Your task to perform on an android device: Clear all items from cart on newegg. Add usb-a to usb-b to the cart on newegg Image 0: 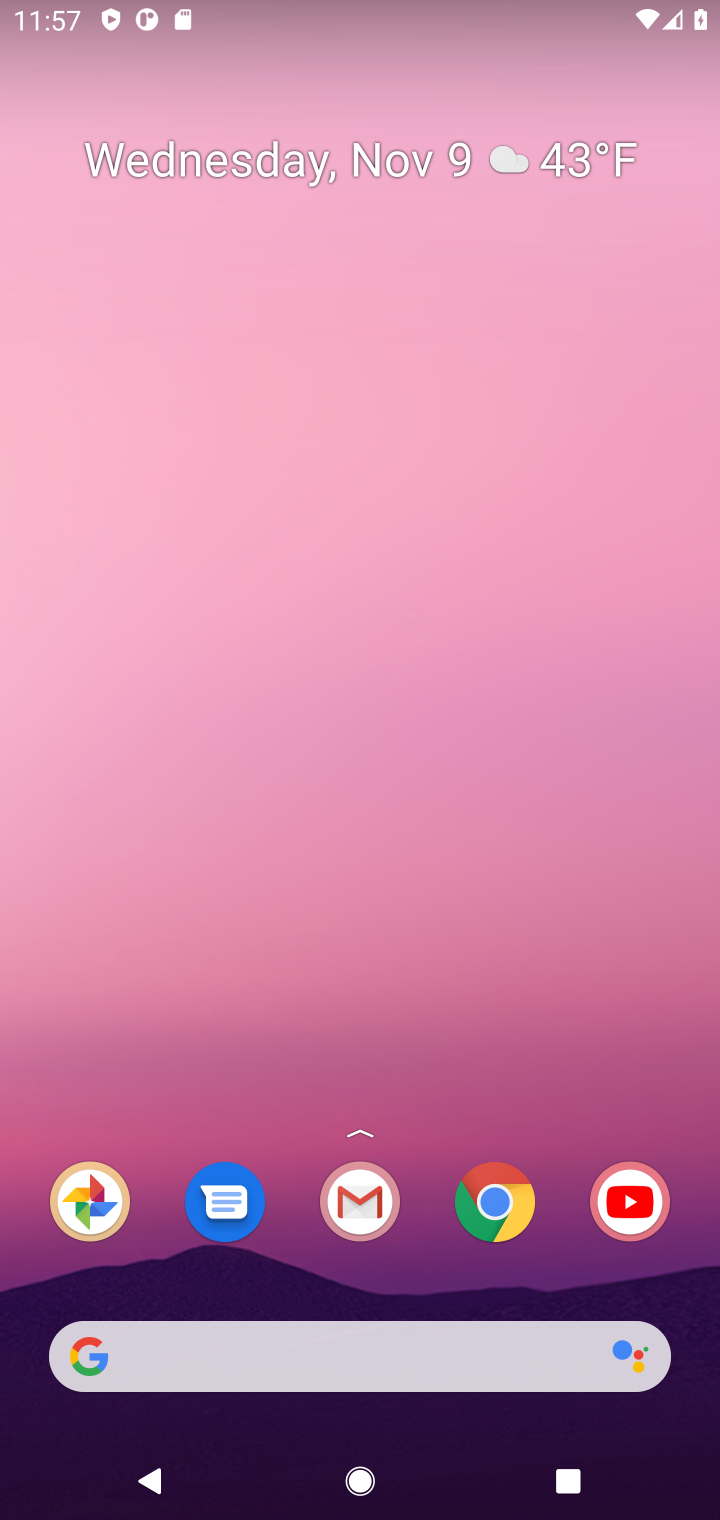
Step 0: click (368, 78)
Your task to perform on an android device: Clear all items from cart on newegg. Add usb-a to usb-b to the cart on newegg Image 1: 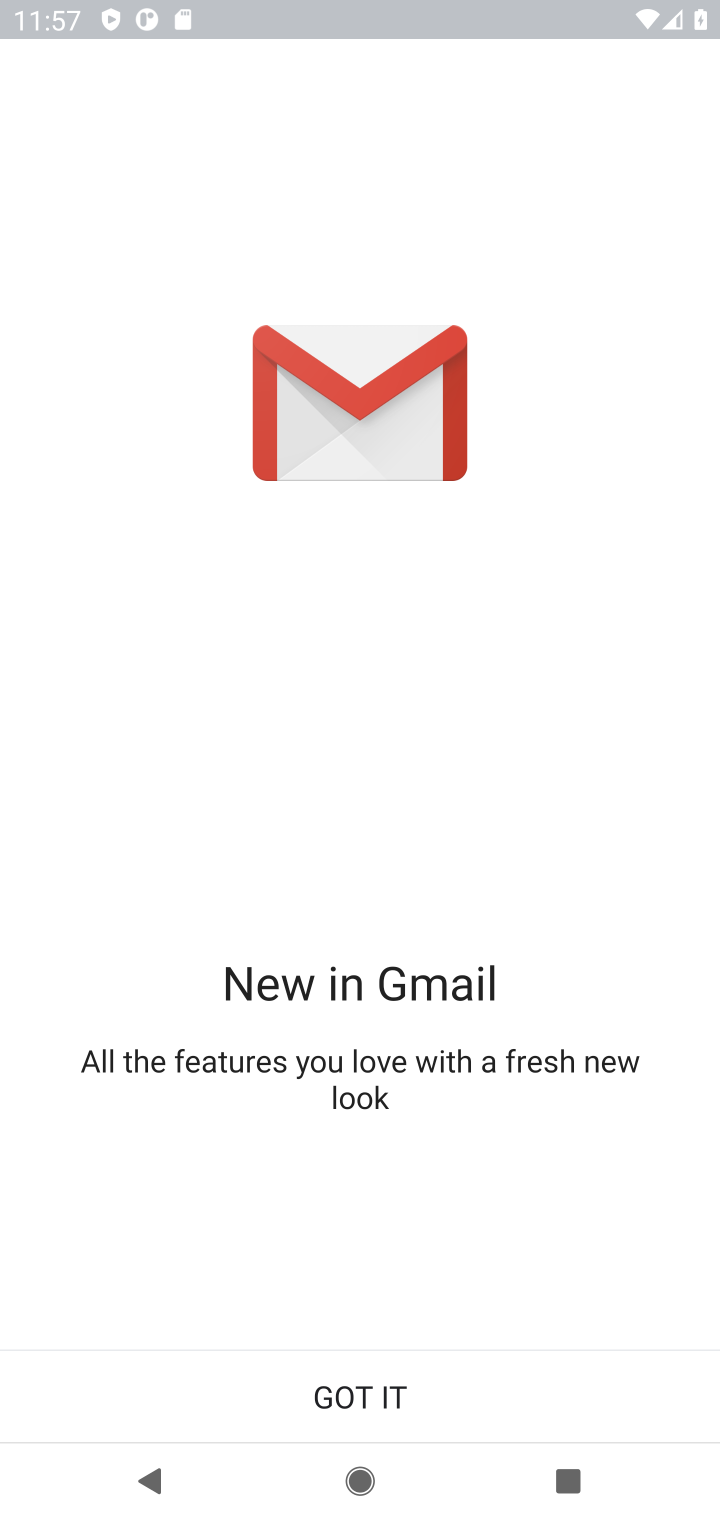
Step 1: press home button
Your task to perform on an android device: Clear all items from cart on newegg. Add usb-a to usb-b to the cart on newegg Image 2: 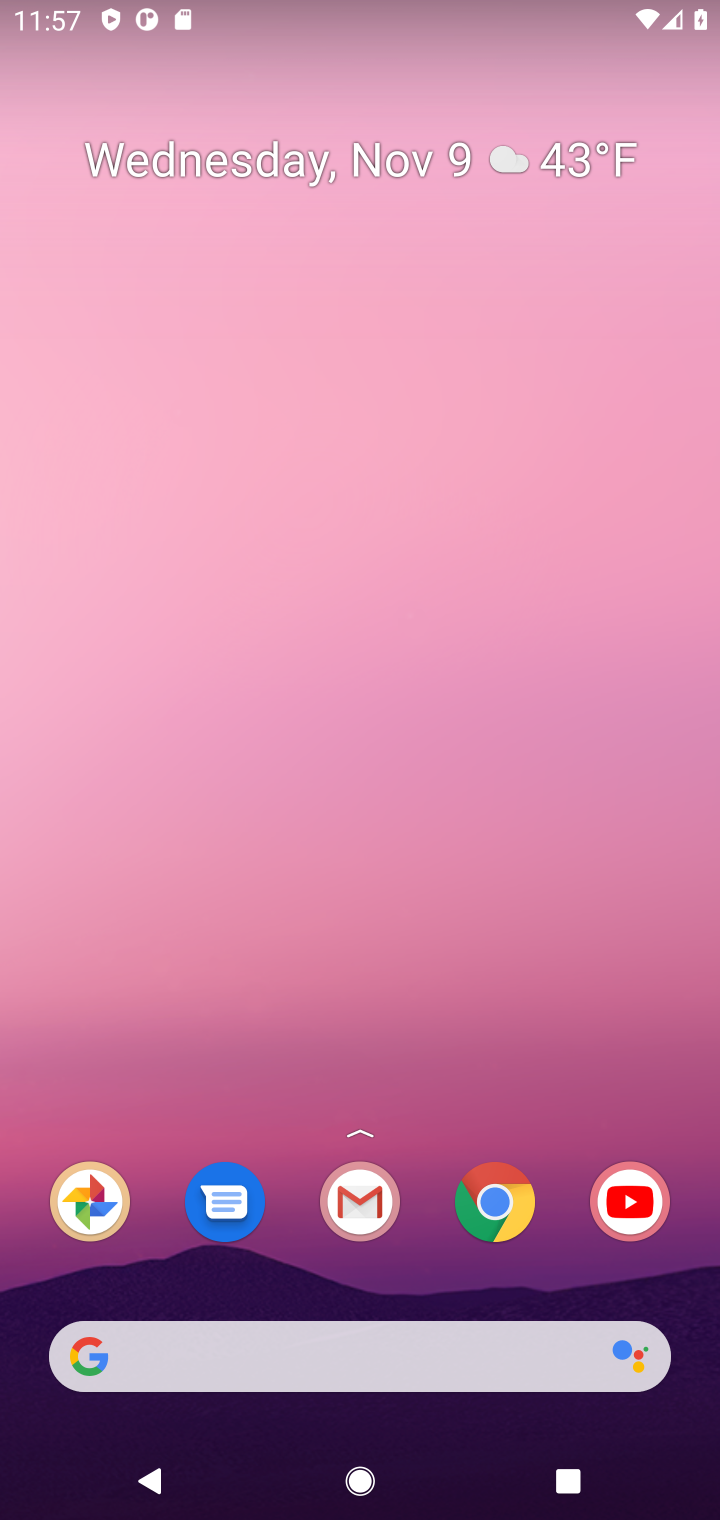
Step 2: click (495, 1192)
Your task to perform on an android device: Clear all items from cart on newegg. Add usb-a to usb-b to the cart on newegg Image 3: 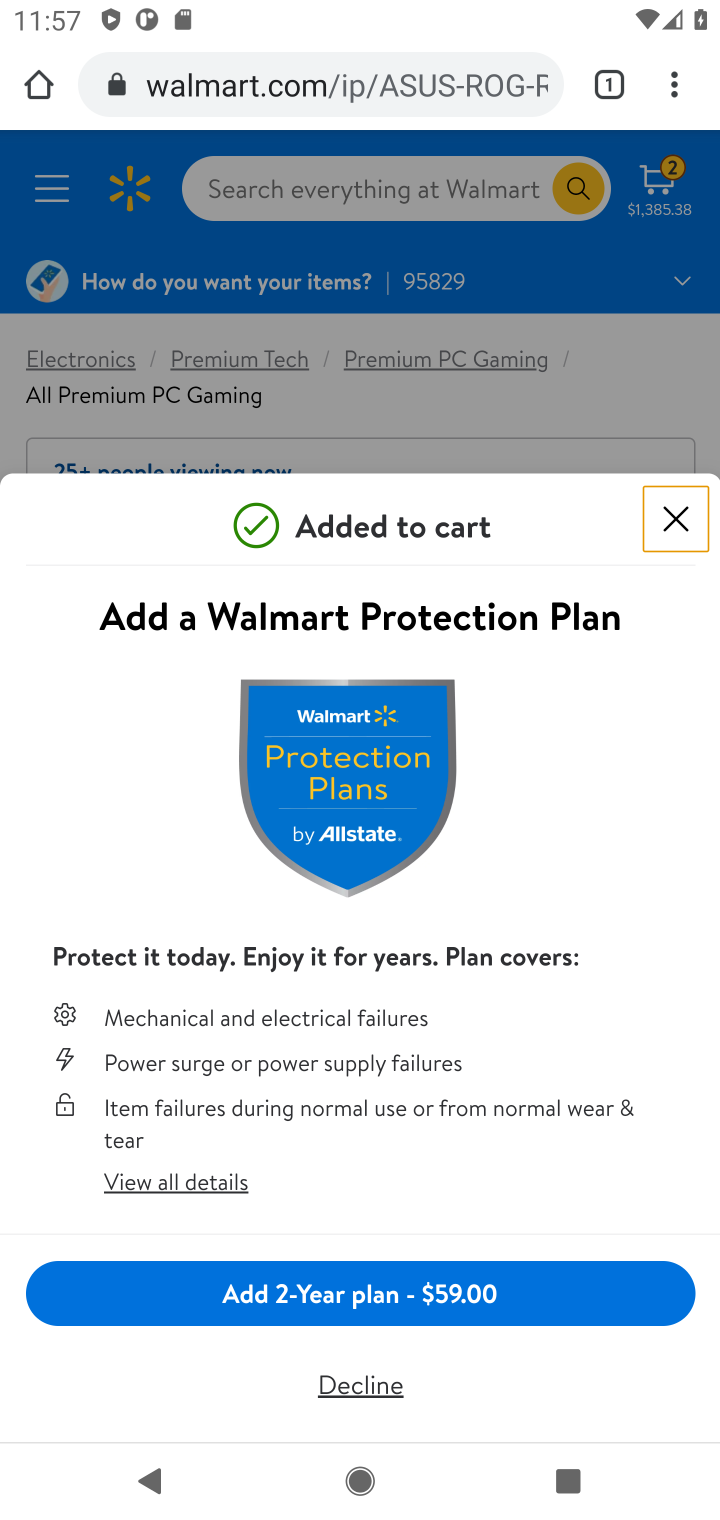
Step 3: click (422, 79)
Your task to perform on an android device: Clear all items from cart on newegg. Add usb-a to usb-b to the cart on newegg Image 4: 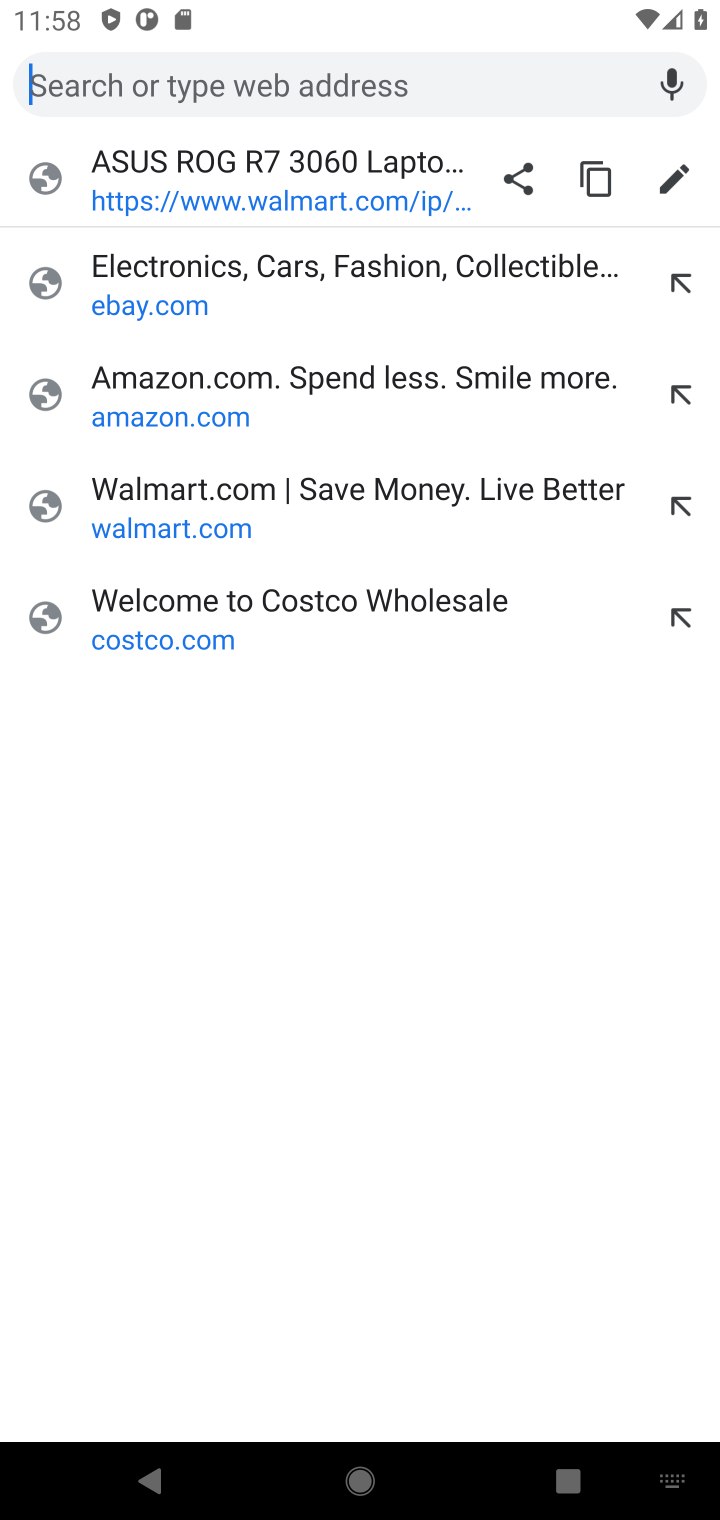
Step 4: type "newegg"
Your task to perform on an android device: Clear all items from cart on newegg. Add usb-a to usb-b to the cart on newegg Image 5: 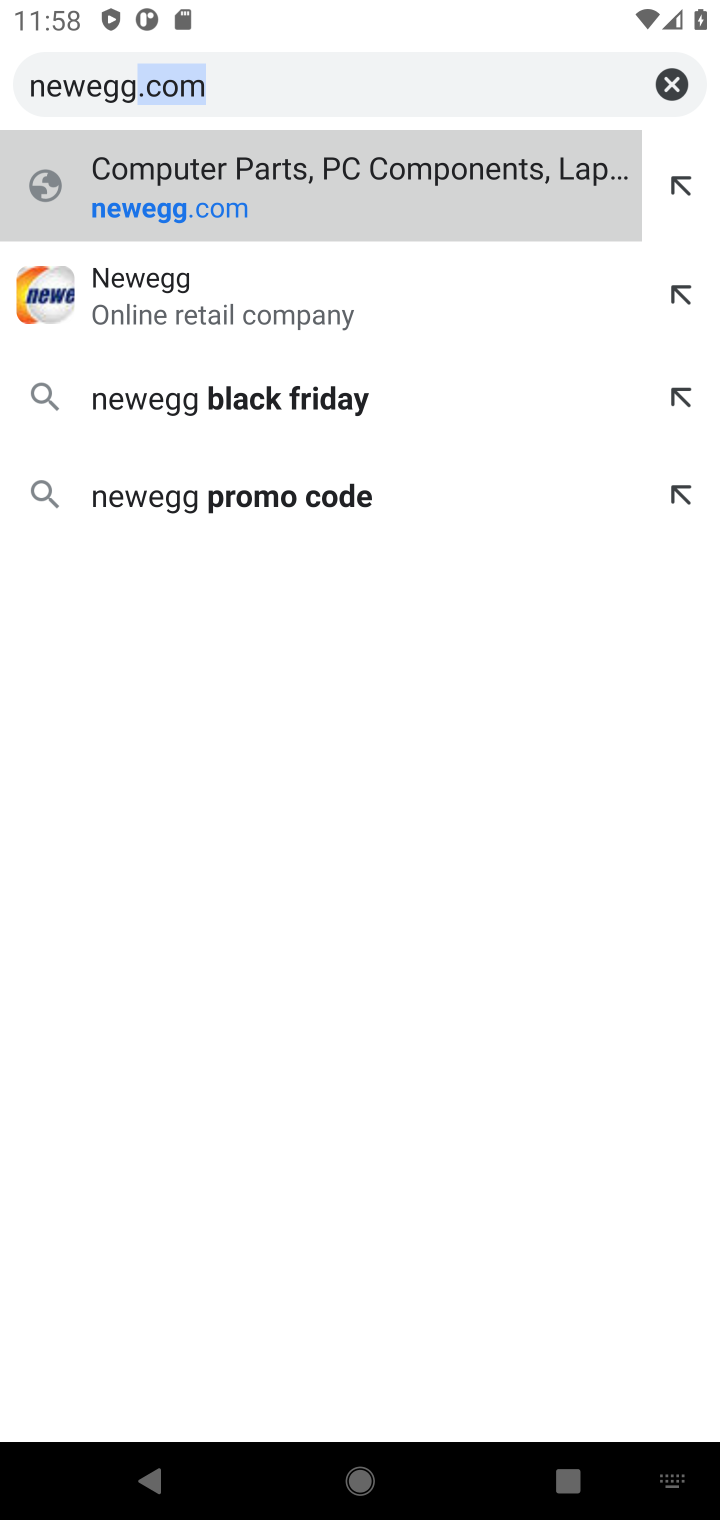
Step 5: press enter
Your task to perform on an android device: Clear all items from cart on newegg. Add usb-a to usb-b to the cart on newegg Image 6: 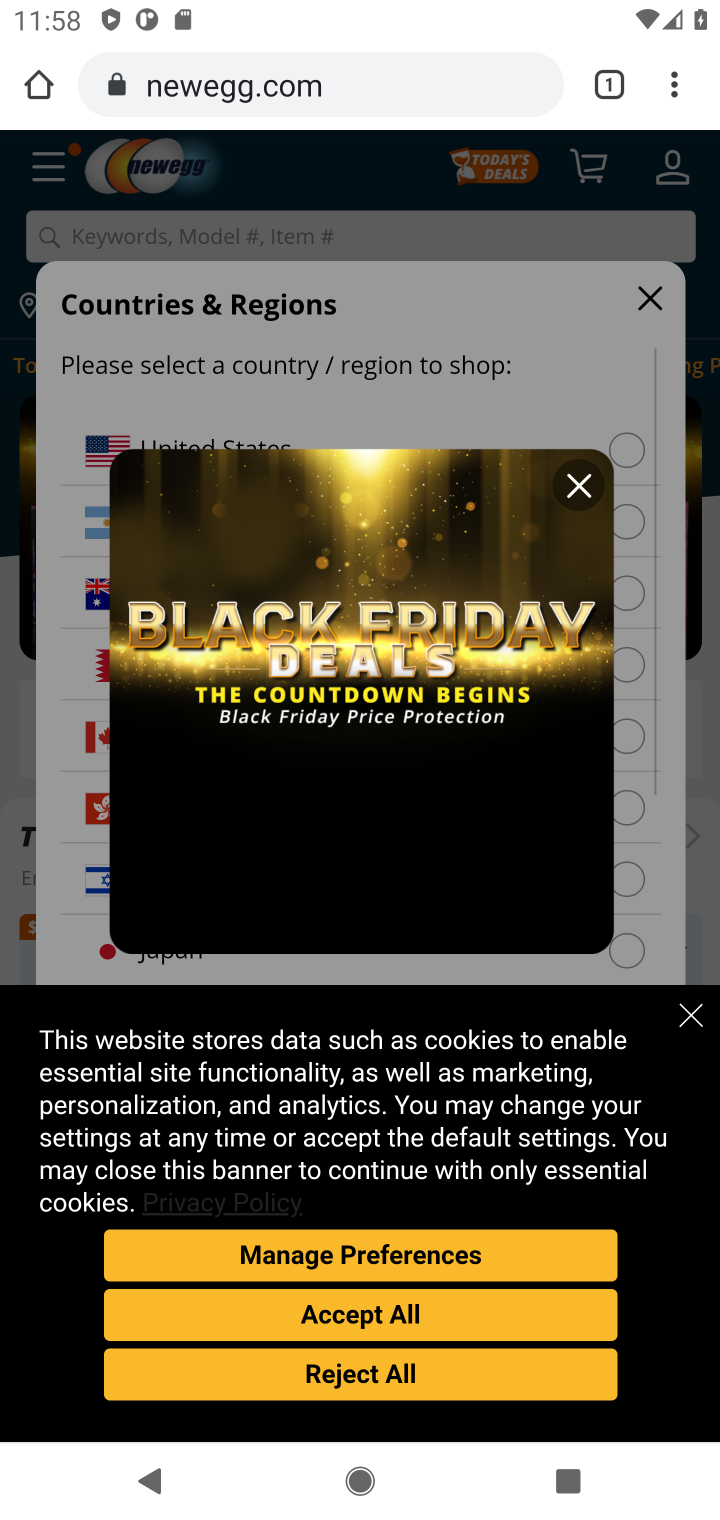
Step 6: click (575, 485)
Your task to perform on an android device: Clear all items from cart on newegg. Add usb-a to usb-b to the cart on newegg Image 7: 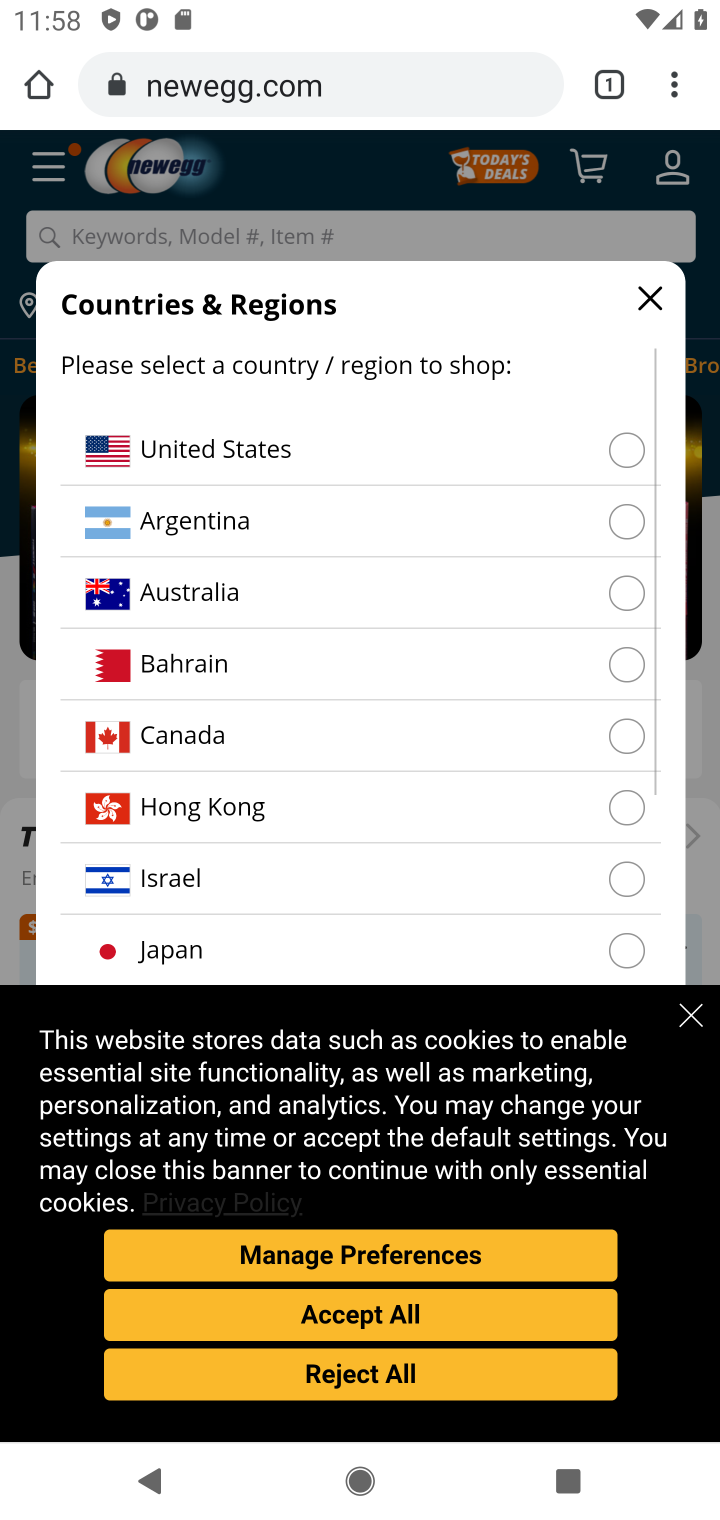
Step 7: click (645, 454)
Your task to perform on an android device: Clear all items from cart on newegg. Add usb-a to usb-b to the cart on newegg Image 8: 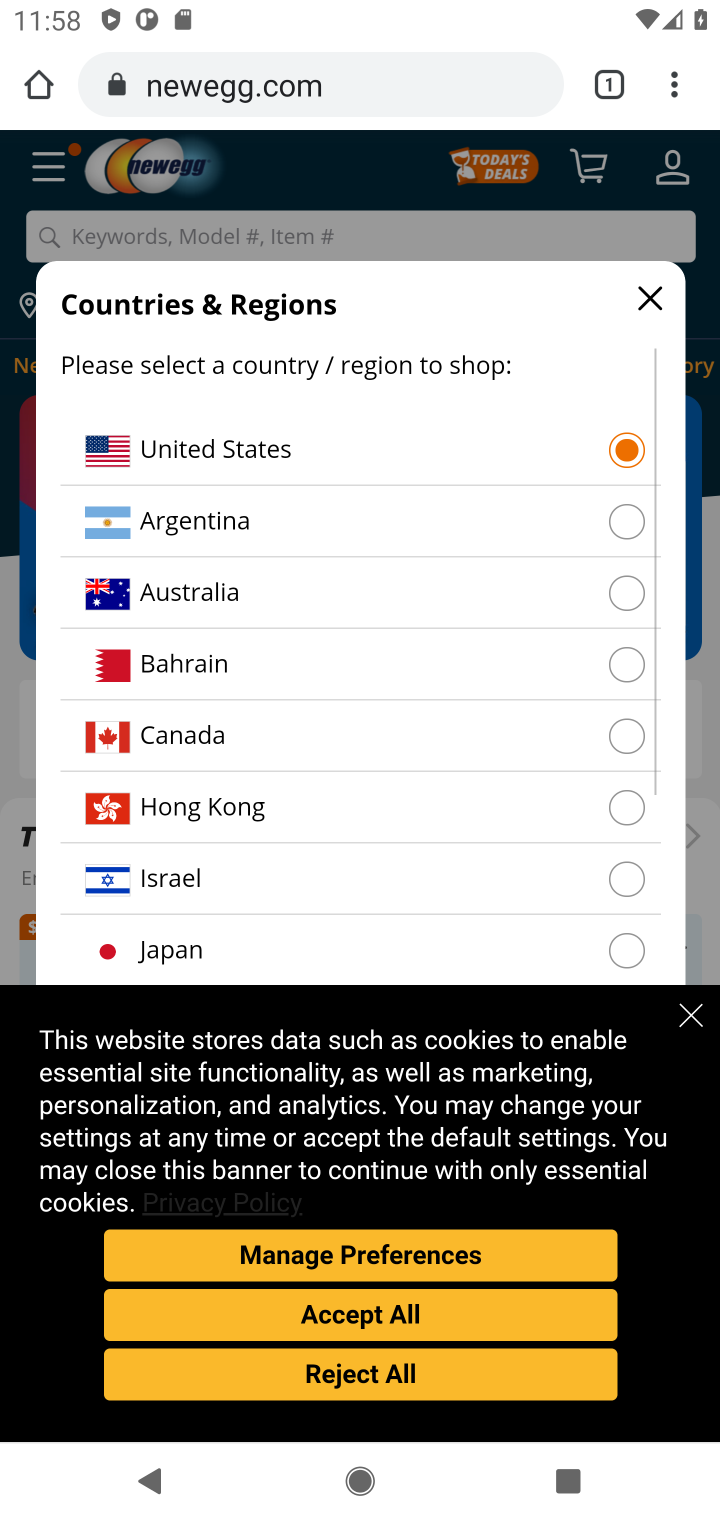
Step 8: click (701, 1021)
Your task to perform on an android device: Clear all items from cart on newegg. Add usb-a to usb-b to the cart on newegg Image 9: 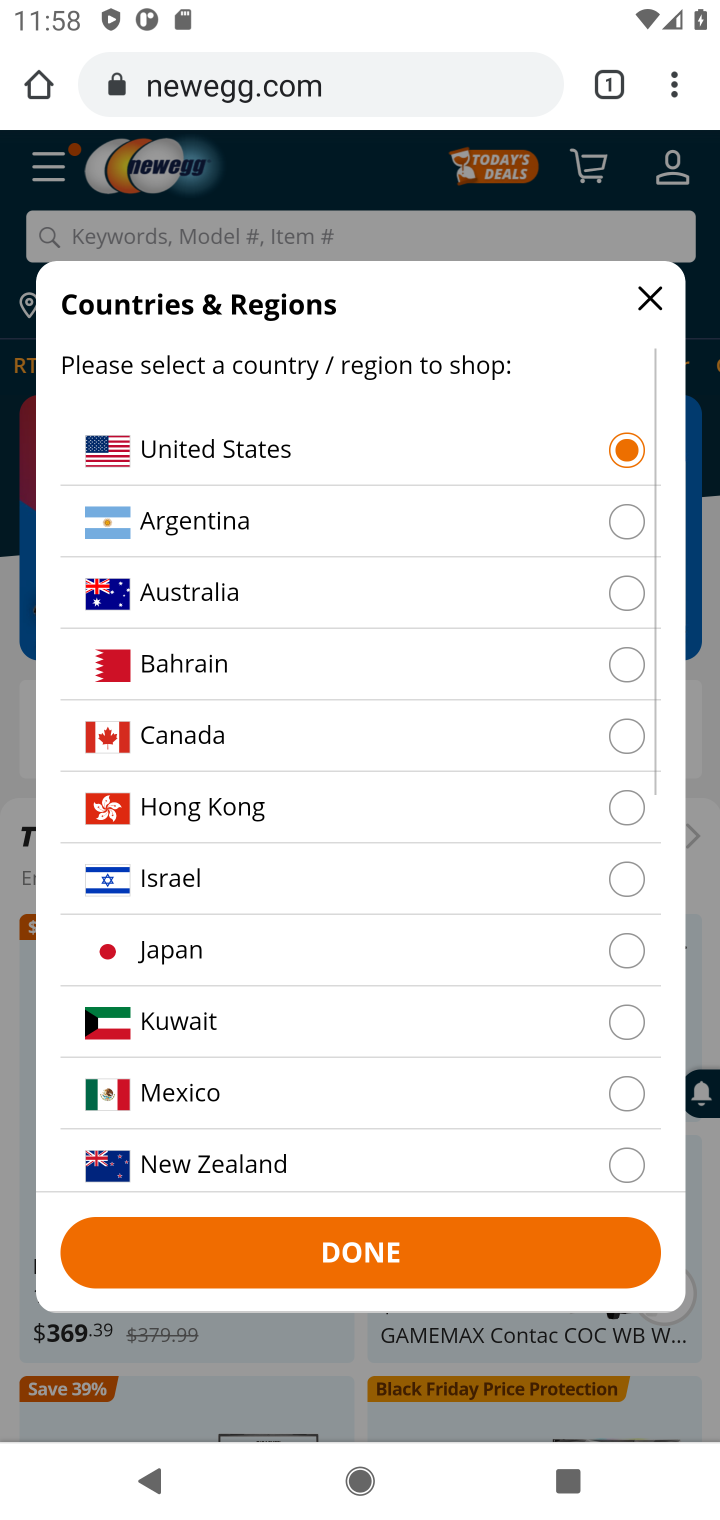
Step 9: click (452, 1265)
Your task to perform on an android device: Clear all items from cart on newegg. Add usb-a to usb-b to the cart on newegg Image 10: 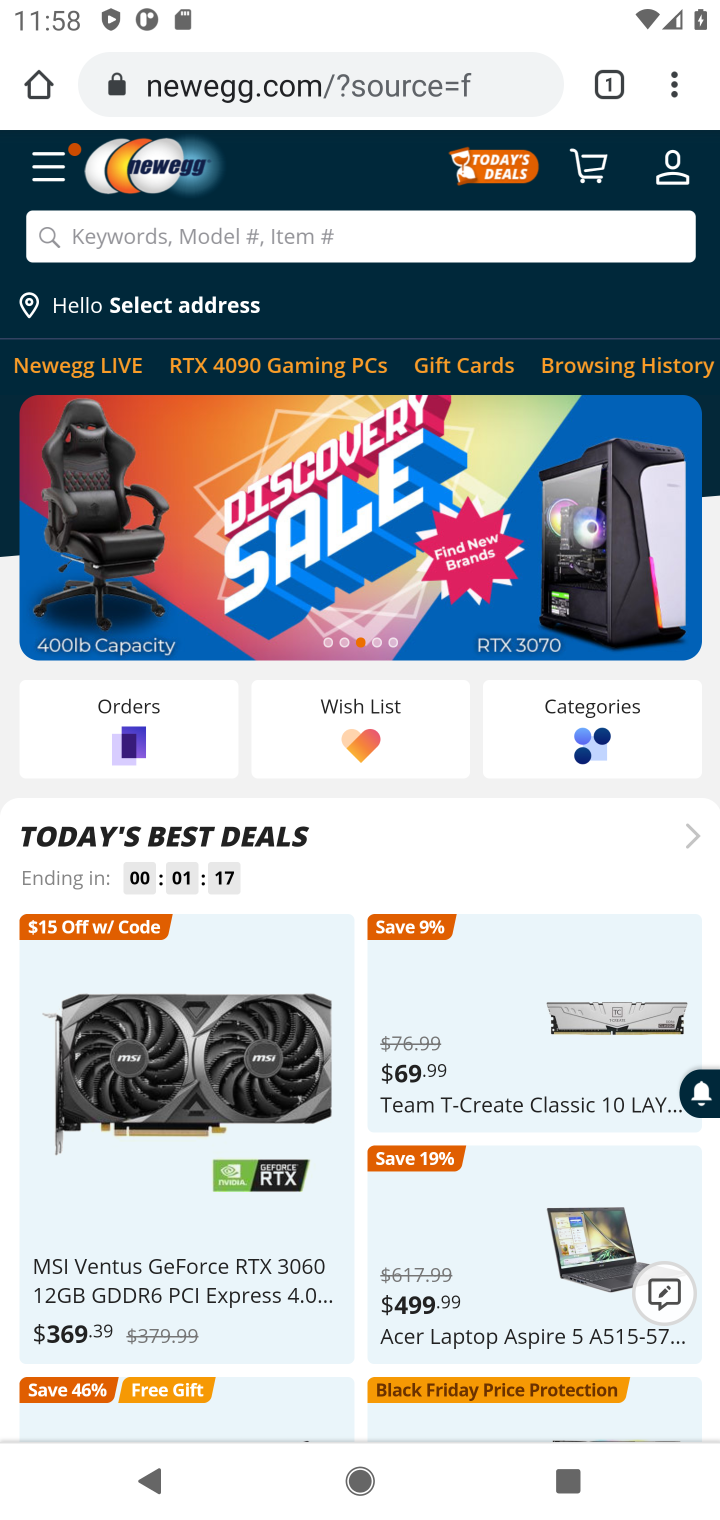
Step 10: click (485, 239)
Your task to perform on an android device: Clear all items from cart on newegg. Add usb-a to usb-b to the cart on newegg Image 11: 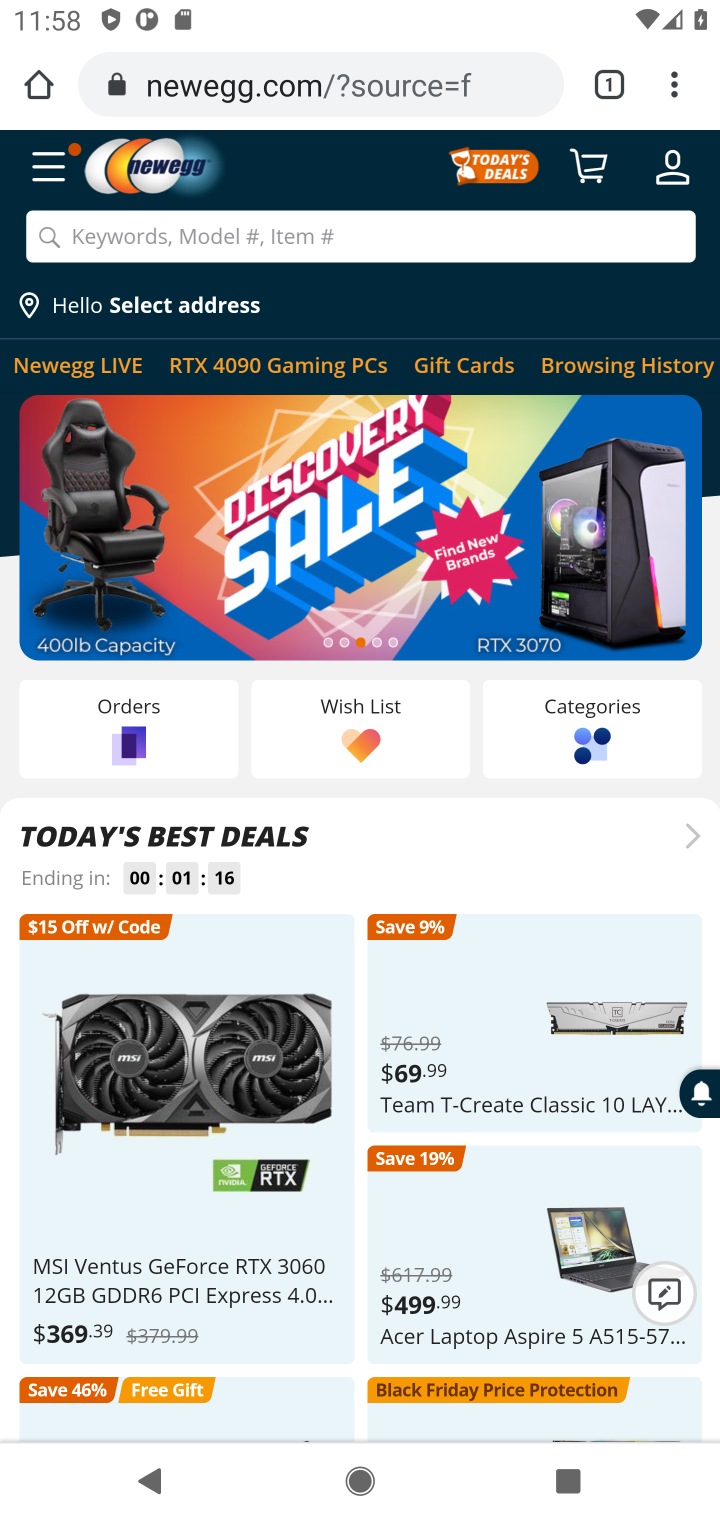
Step 11: press enter
Your task to perform on an android device: Clear all items from cart on newegg. Add usb-a to usb-b to the cart on newegg Image 12: 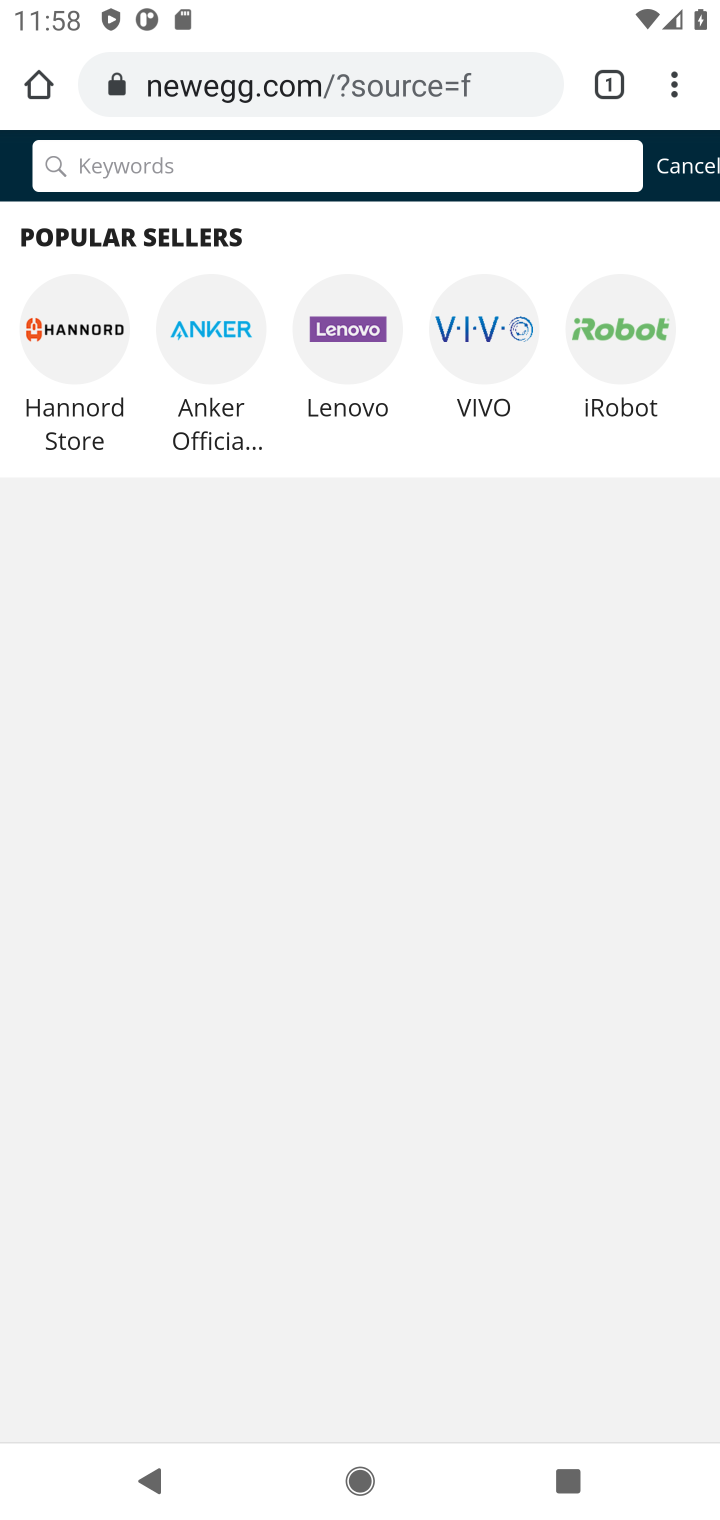
Step 12: type "usb-a to usb-b"
Your task to perform on an android device: Clear all items from cart on newegg. Add usb-a to usb-b to the cart on newegg Image 13: 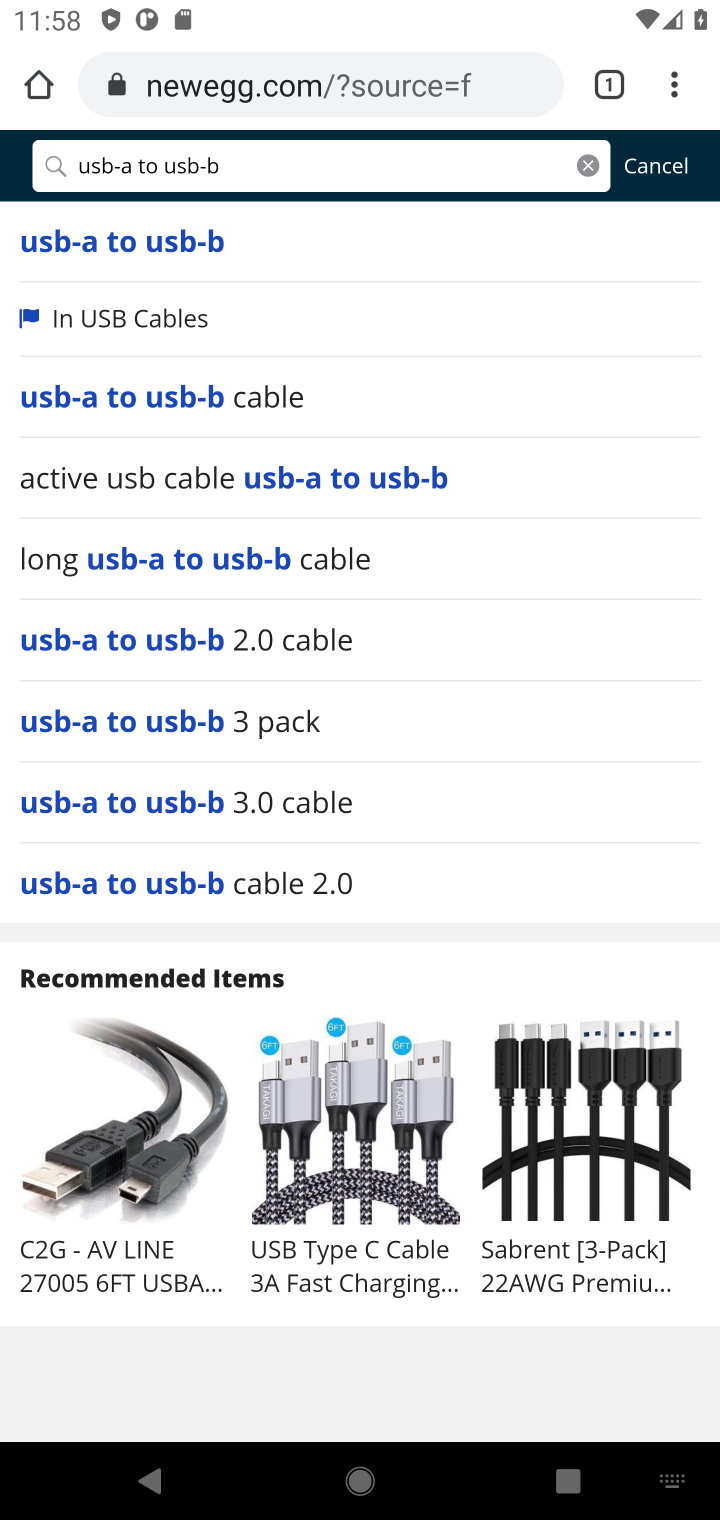
Step 13: click (158, 225)
Your task to perform on an android device: Clear all items from cart on newegg. Add usb-a to usb-b to the cart on newegg Image 14: 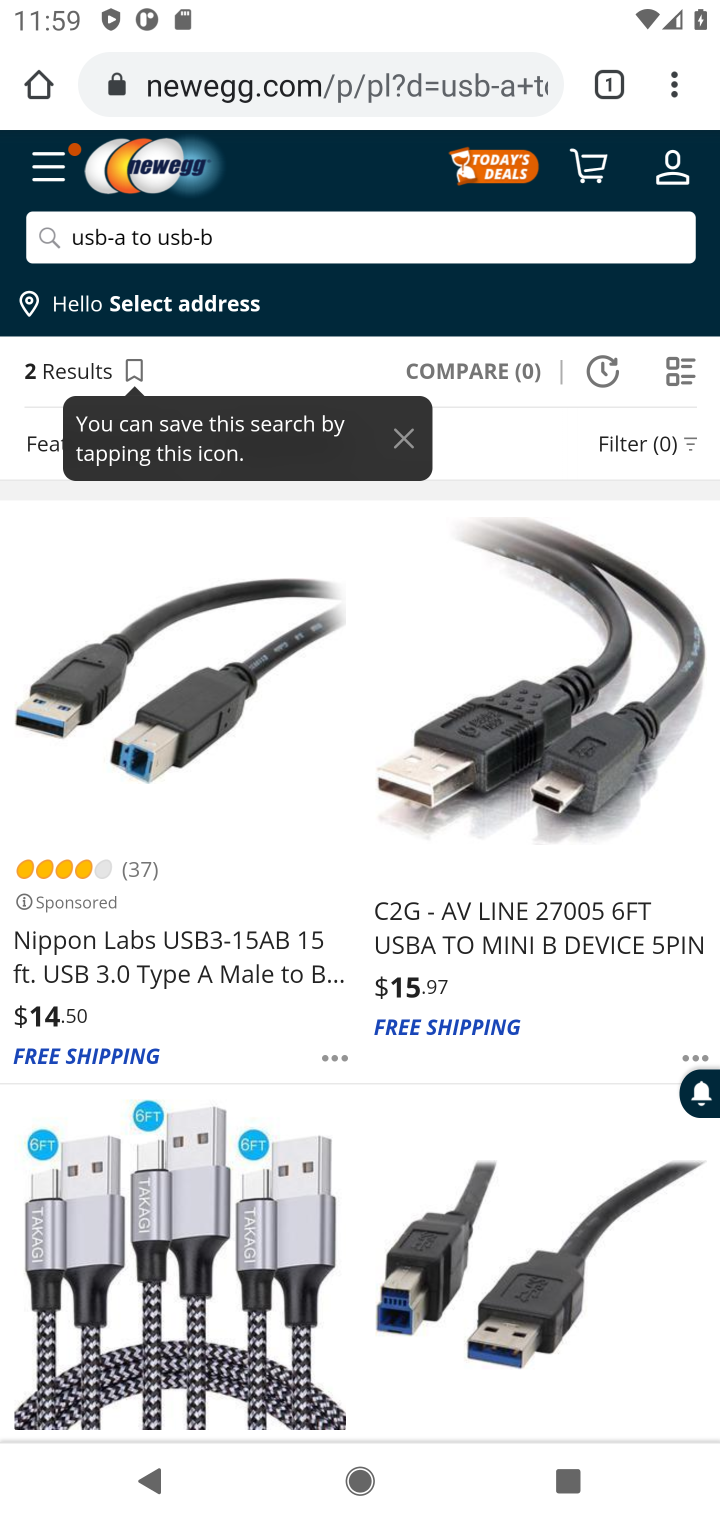
Step 14: drag from (478, 1146) to (520, 649)
Your task to perform on an android device: Clear all items from cart on newegg. Add usb-a to usb-b to the cart on newegg Image 15: 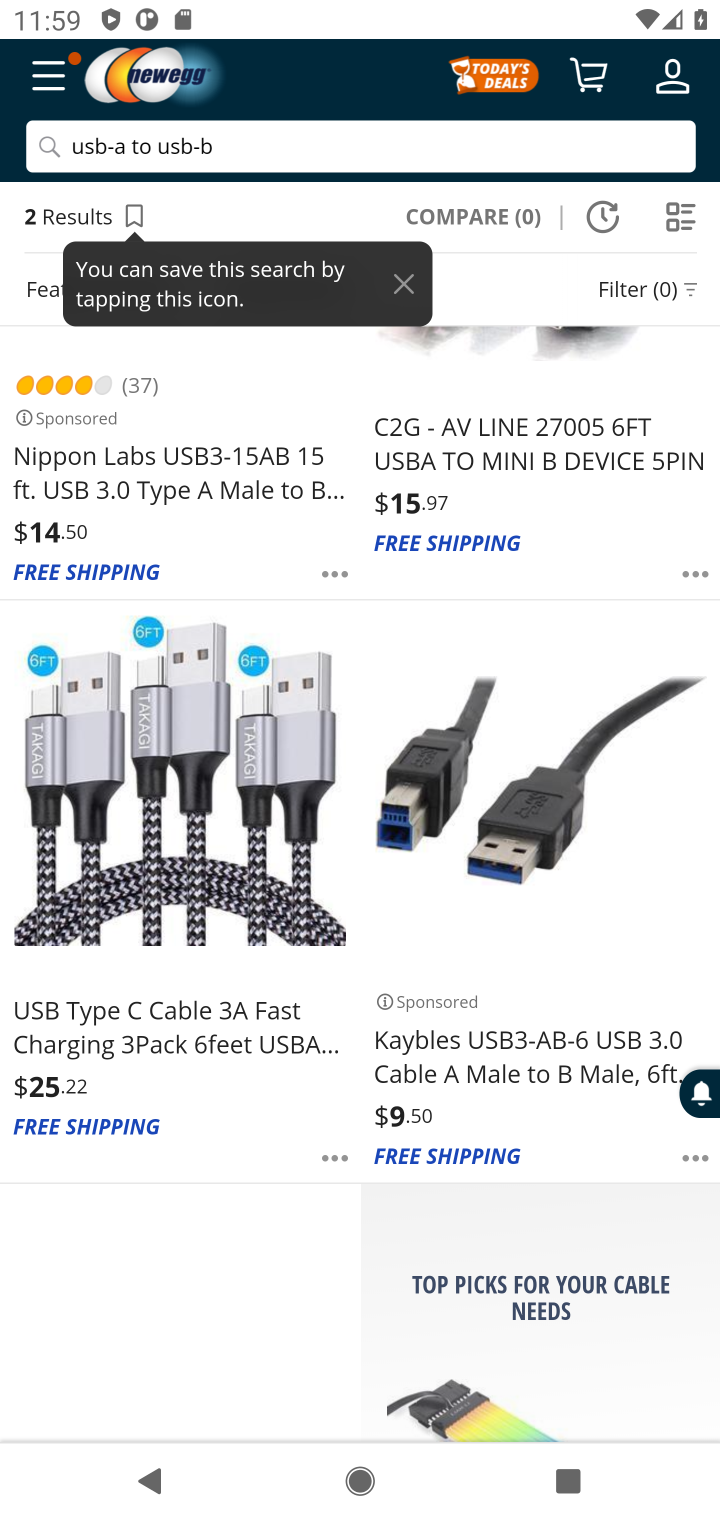
Step 15: click (596, 873)
Your task to perform on an android device: Clear all items from cart on newegg. Add usb-a to usb-b to the cart on newegg Image 16: 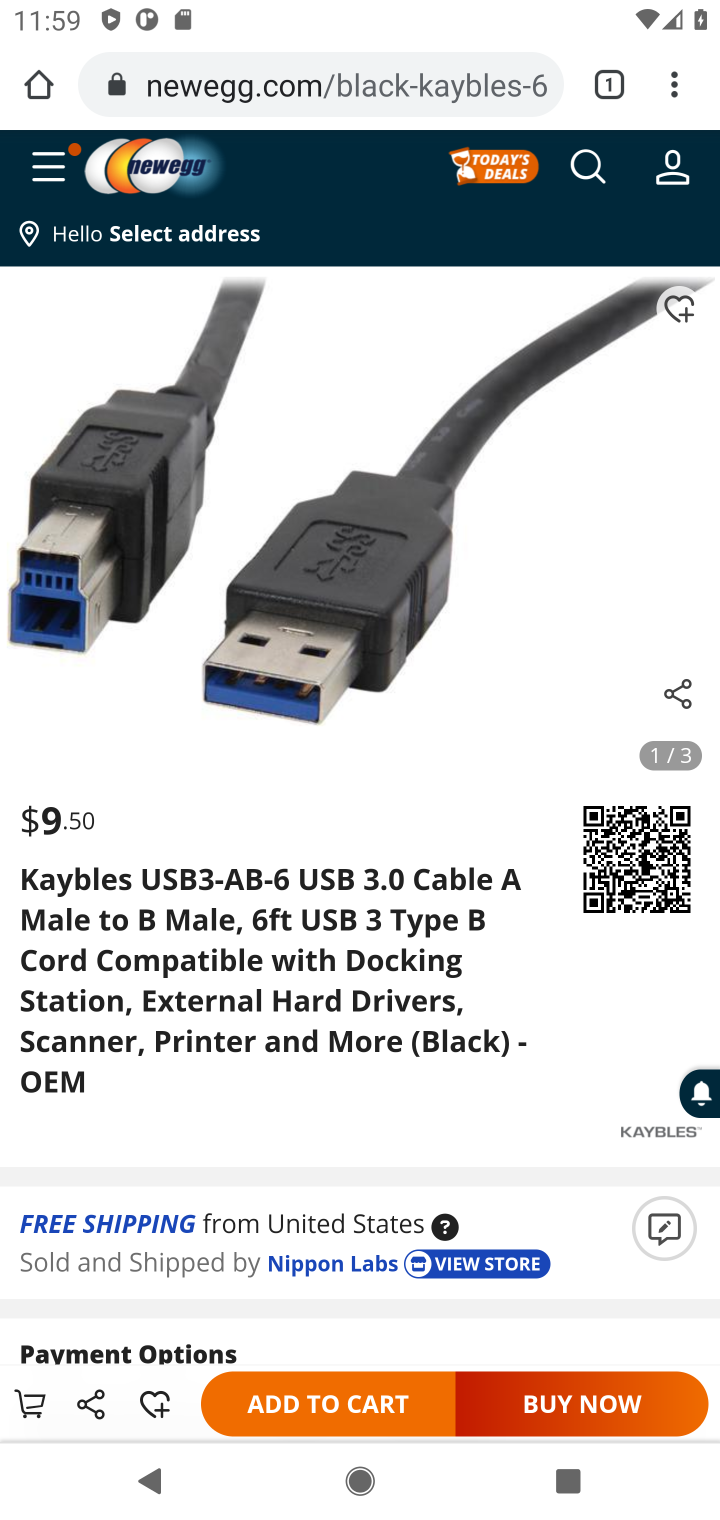
Step 16: click (315, 1393)
Your task to perform on an android device: Clear all items from cart on newegg. Add usb-a to usb-b to the cart on newegg Image 17: 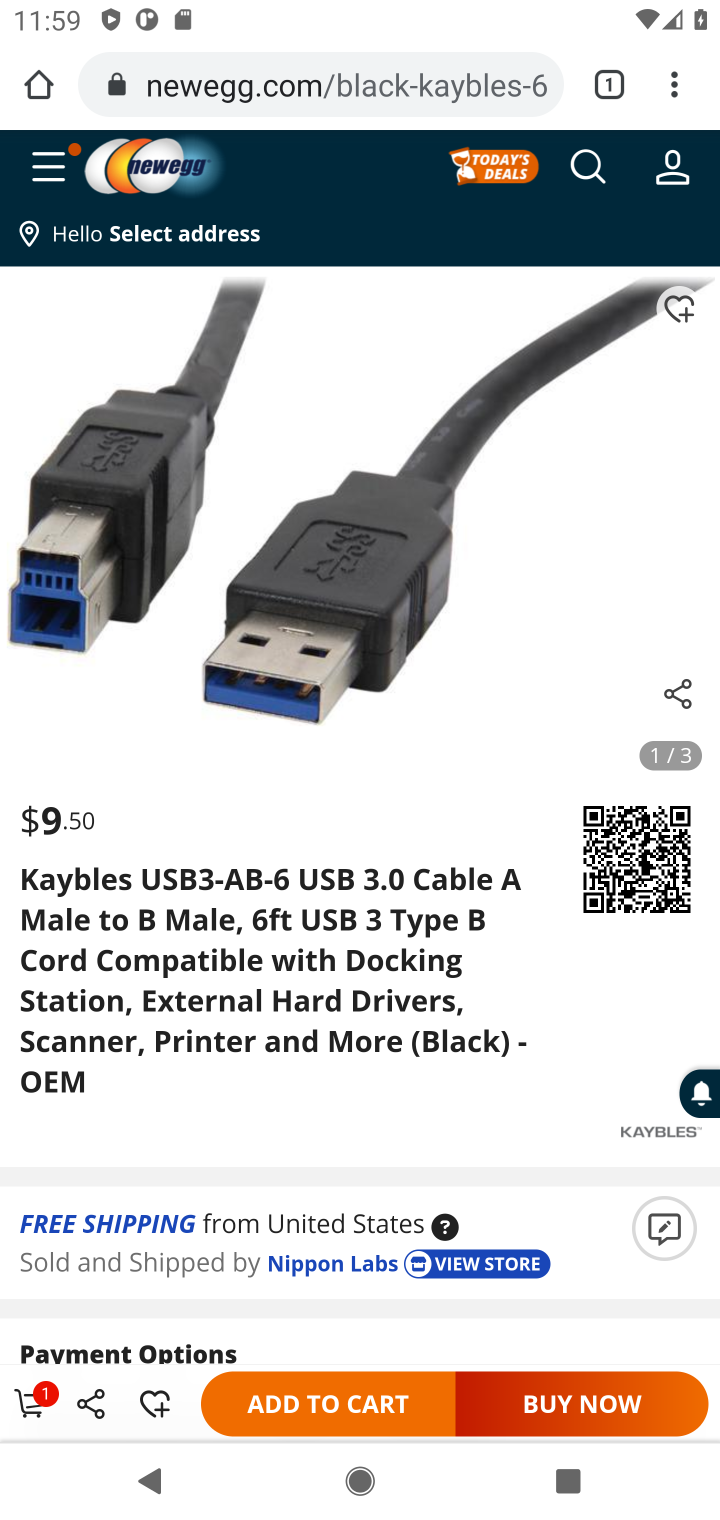
Step 17: click (336, 1402)
Your task to perform on an android device: Clear all items from cart on newegg. Add usb-a to usb-b to the cart on newegg Image 18: 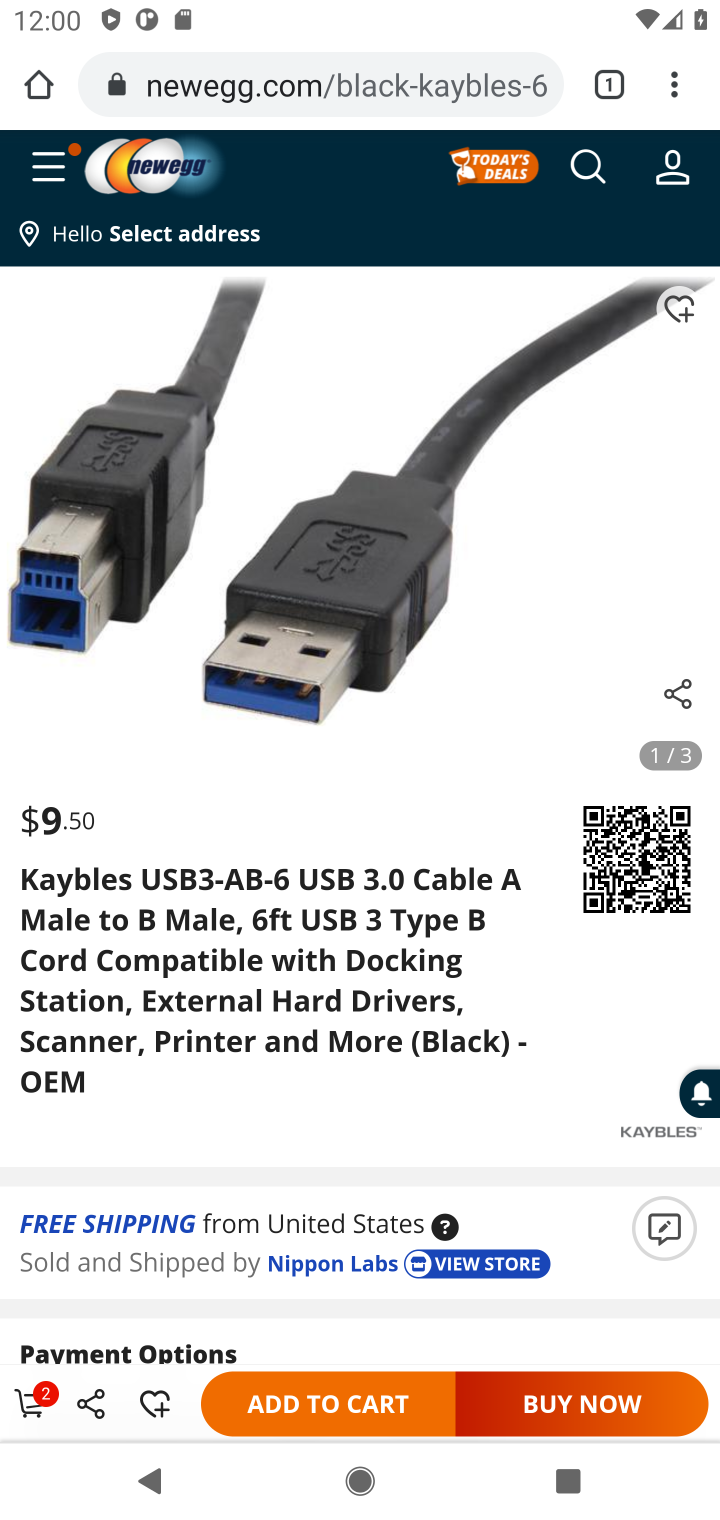
Step 18: task complete